Your task to perform on an android device: Go to Yahoo.com Image 0: 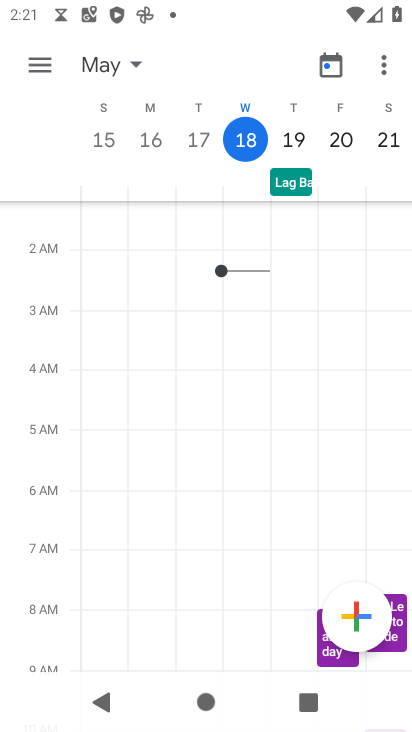
Step 0: press home button
Your task to perform on an android device: Go to Yahoo.com Image 1: 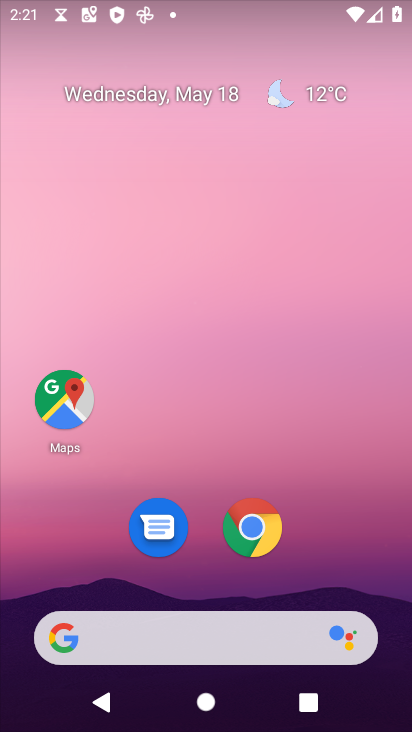
Step 1: click (251, 523)
Your task to perform on an android device: Go to Yahoo.com Image 2: 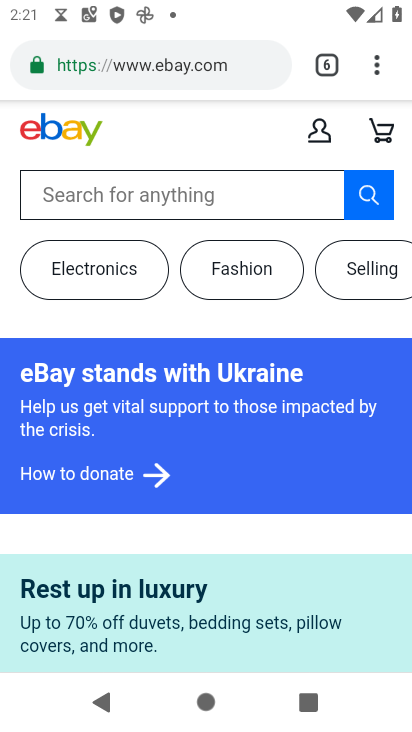
Step 2: click (316, 65)
Your task to perform on an android device: Go to Yahoo.com Image 3: 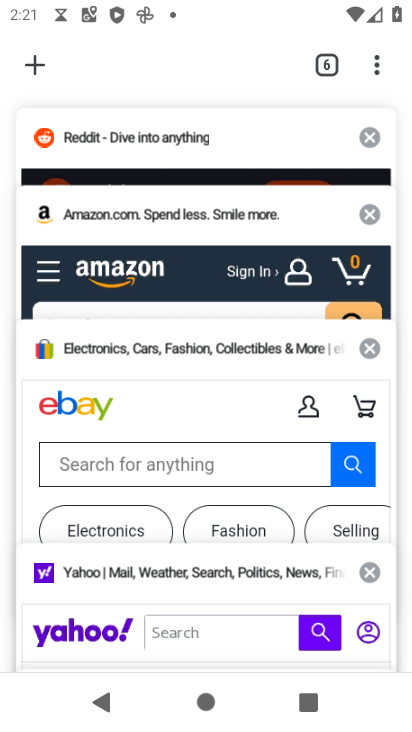
Step 3: click (102, 568)
Your task to perform on an android device: Go to Yahoo.com Image 4: 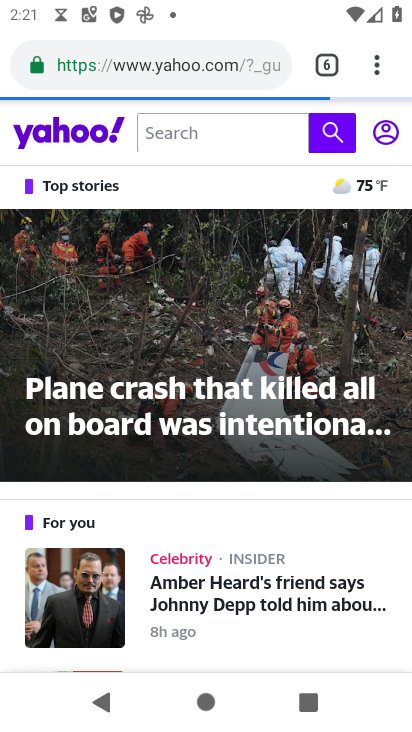
Step 4: task complete